Your task to perform on an android device: Go to CNN.com Image 0: 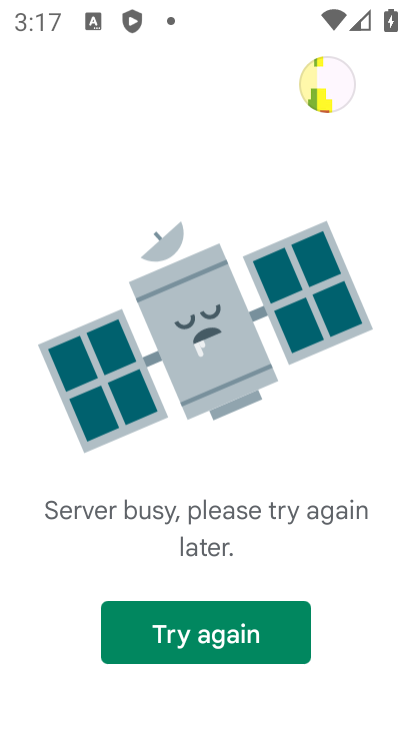
Step 0: press home button
Your task to perform on an android device: Go to CNN.com Image 1: 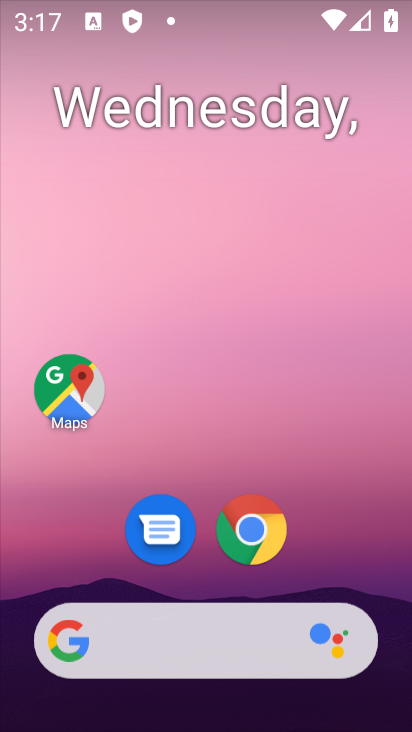
Step 1: click (246, 535)
Your task to perform on an android device: Go to CNN.com Image 2: 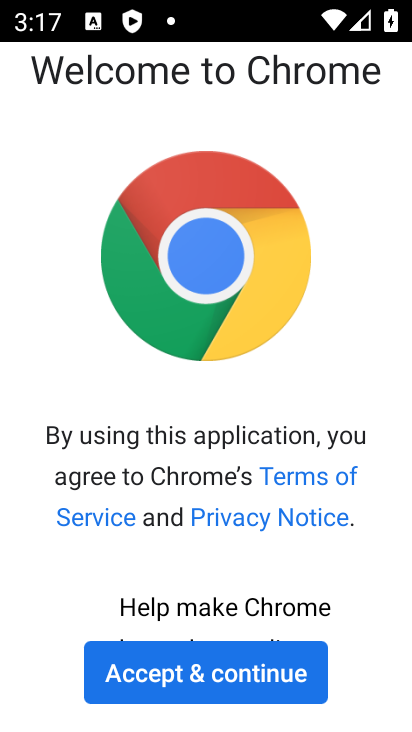
Step 2: click (213, 676)
Your task to perform on an android device: Go to CNN.com Image 3: 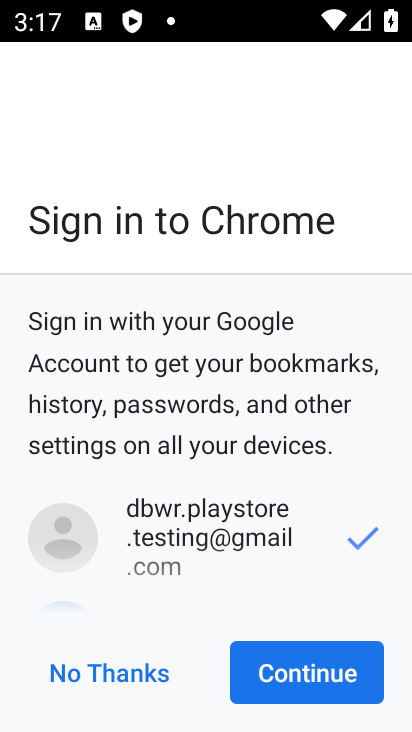
Step 3: click (103, 686)
Your task to perform on an android device: Go to CNN.com Image 4: 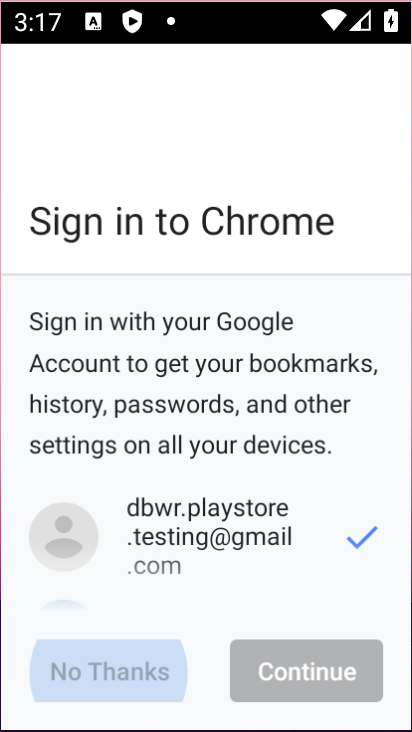
Step 4: click (108, 667)
Your task to perform on an android device: Go to CNN.com Image 5: 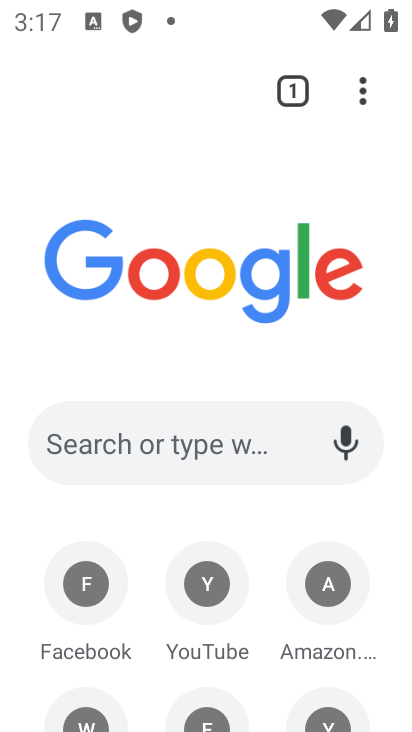
Step 5: click (164, 89)
Your task to perform on an android device: Go to CNN.com Image 6: 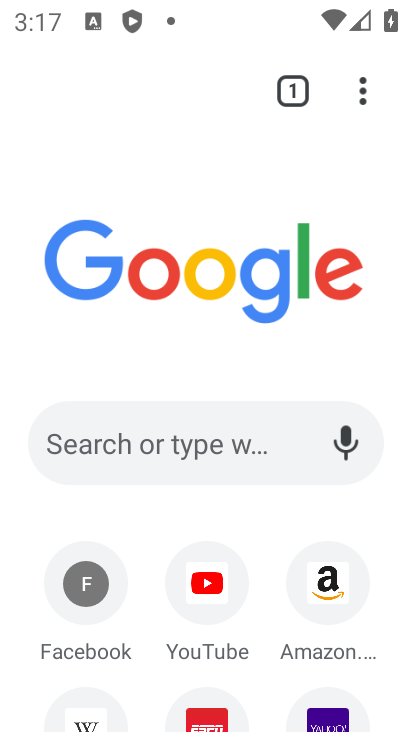
Step 6: click (221, 426)
Your task to perform on an android device: Go to CNN.com Image 7: 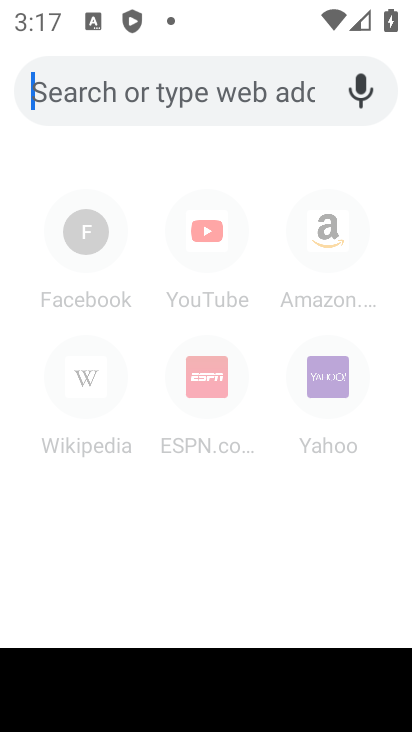
Step 7: click (130, 87)
Your task to perform on an android device: Go to CNN.com Image 8: 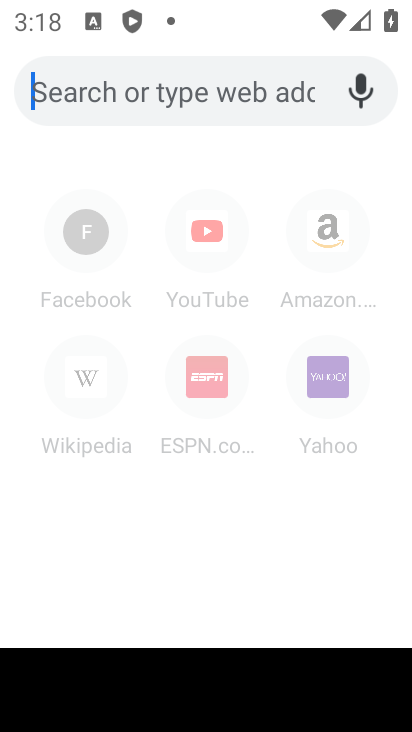
Step 8: type "CNN.com"
Your task to perform on an android device: Go to CNN.com Image 9: 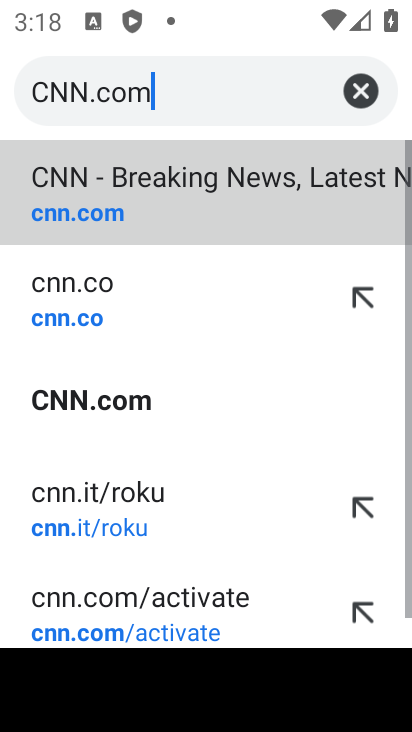
Step 9: type ""
Your task to perform on an android device: Go to CNN.com Image 10: 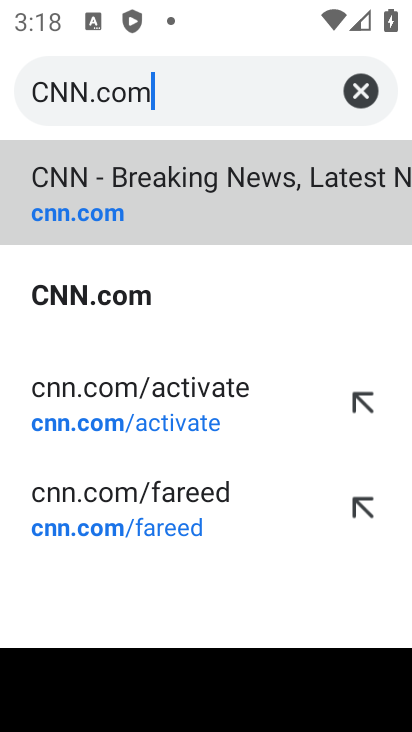
Step 10: click (118, 316)
Your task to perform on an android device: Go to CNN.com Image 11: 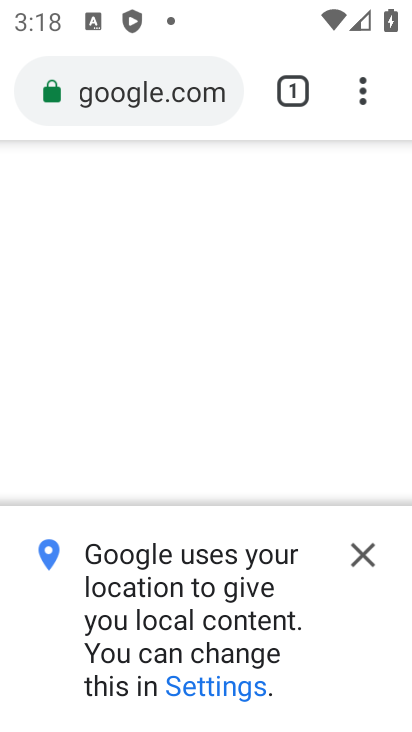
Step 11: click (360, 548)
Your task to perform on an android device: Go to CNN.com Image 12: 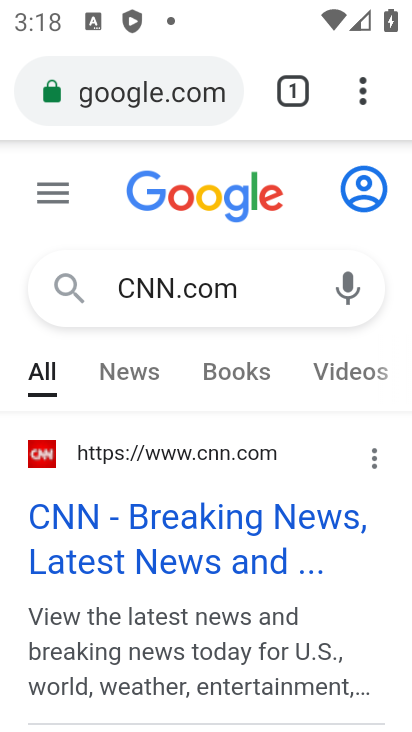
Step 12: click (241, 524)
Your task to perform on an android device: Go to CNN.com Image 13: 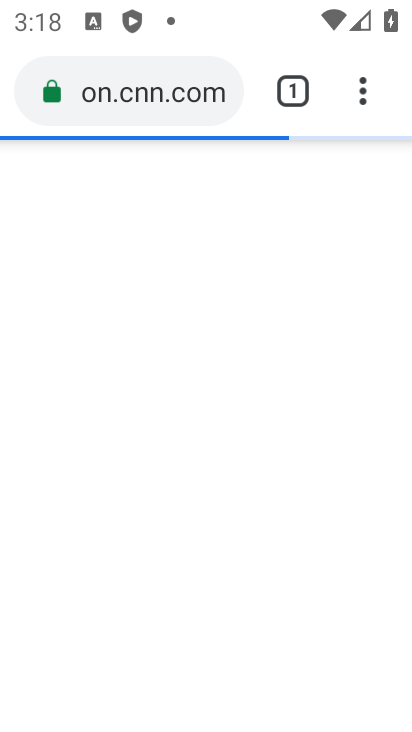
Step 13: task complete